Your task to perform on an android device: Open network settings Image 0: 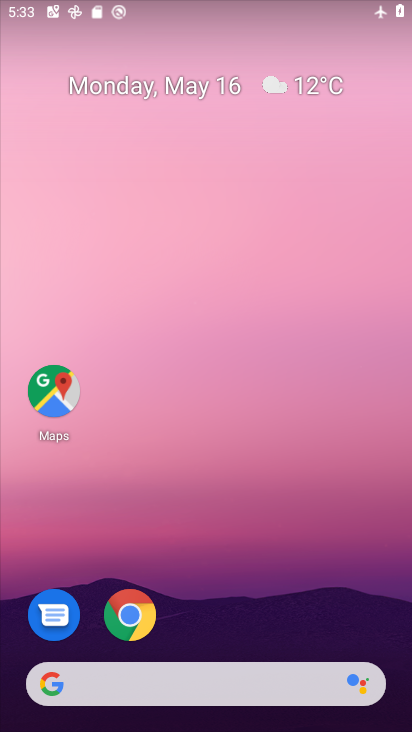
Step 0: drag from (211, 639) to (276, 226)
Your task to perform on an android device: Open network settings Image 1: 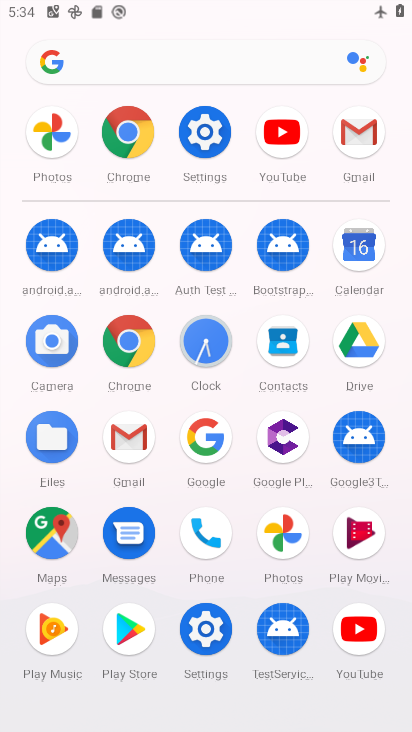
Step 1: click (126, 164)
Your task to perform on an android device: Open network settings Image 2: 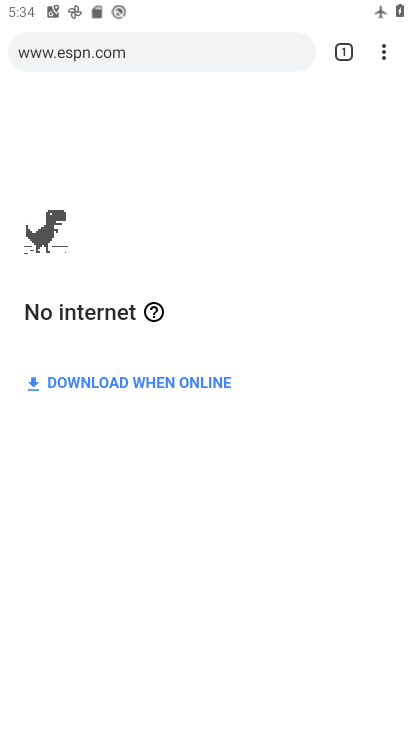
Step 2: press home button
Your task to perform on an android device: Open network settings Image 3: 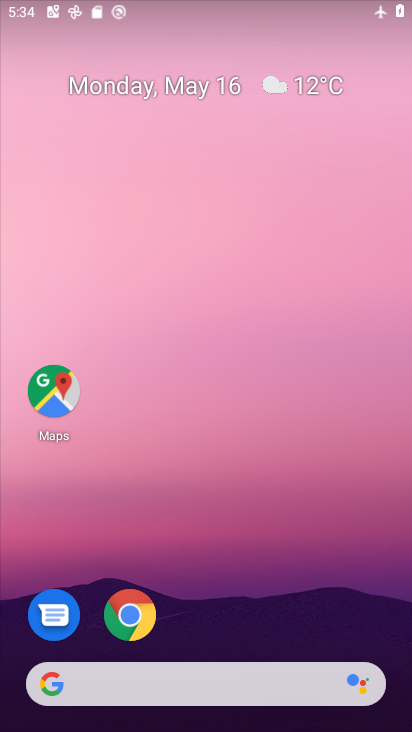
Step 3: drag from (228, 623) to (307, 120)
Your task to perform on an android device: Open network settings Image 4: 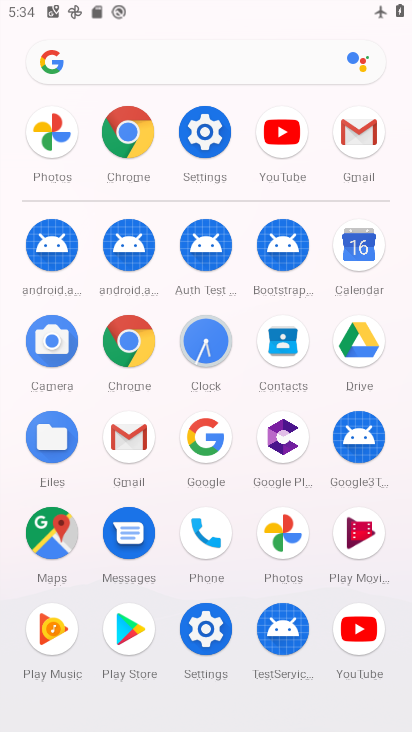
Step 4: click (212, 127)
Your task to perform on an android device: Open network settings Image 5: 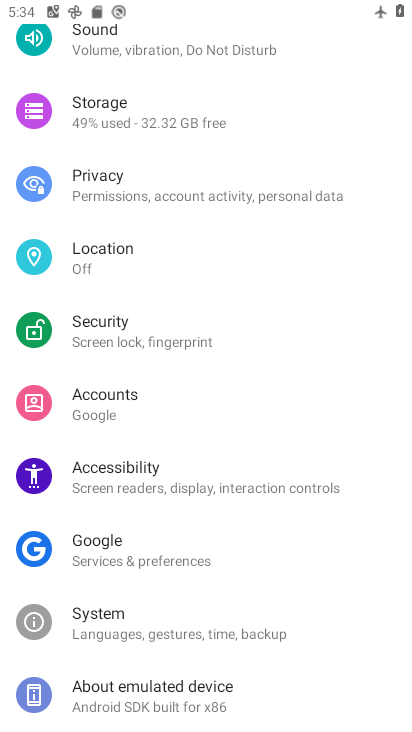
Step 5: drag from (192, 247) to (214, 461)
Your task to perform on an android device: Open network settings Image 6: 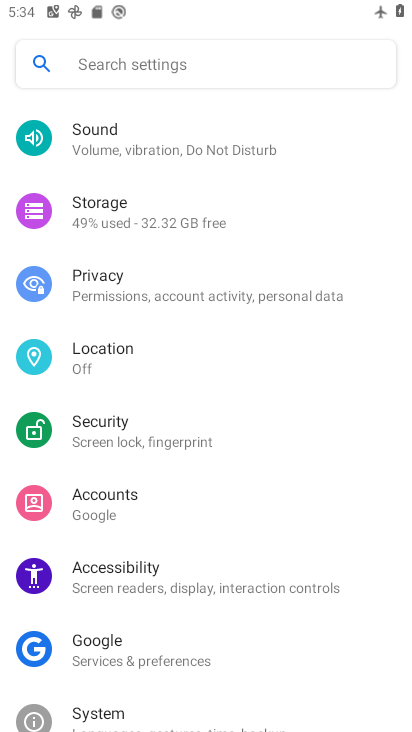
Step 6: drag from (252, 228) to (248, 721)
Your task to perform on an android device: Open network settings Image 7: 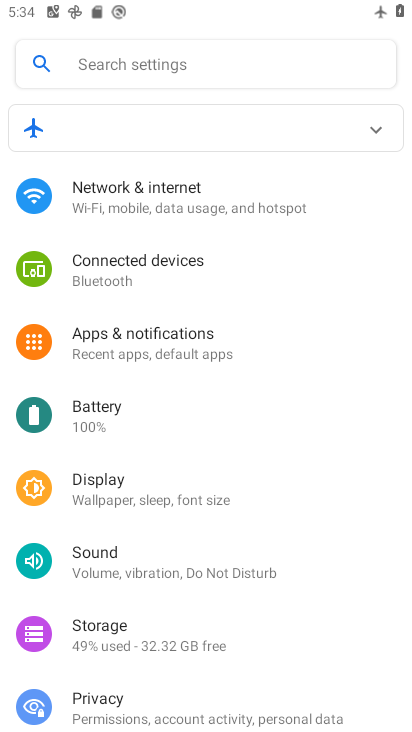
Step 7: click (196, 221)
Your task to perform on an android device: Open network settings Image 8: 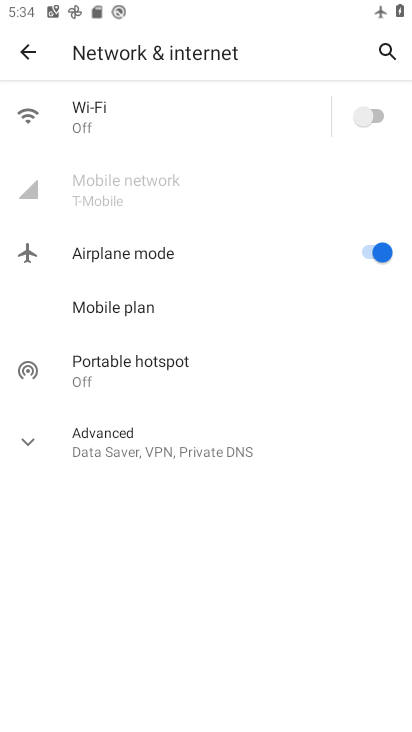
Step 8: task complete